Your task to perform on an android device: Go to settings Image 0: 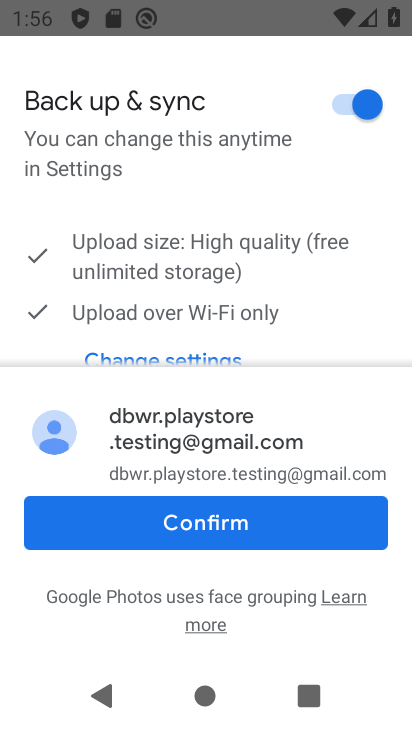
Step 0: press home button
Your task to perform on an android device: Go to settings Image 1: 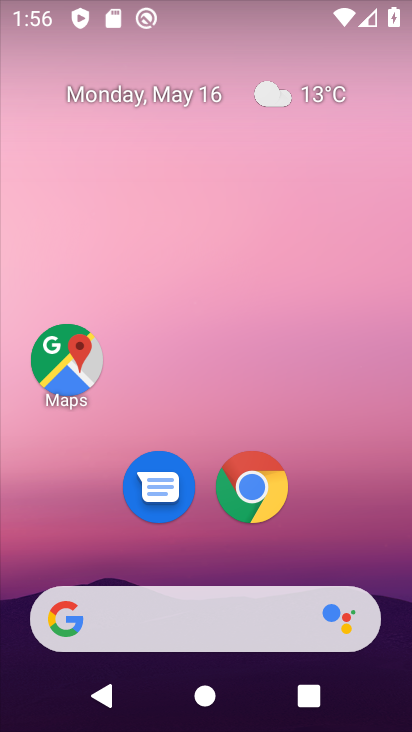
Step 1: drag from (357, 421) to (164, 232)
Your task to perform on an android device: Go to settings Image 2: 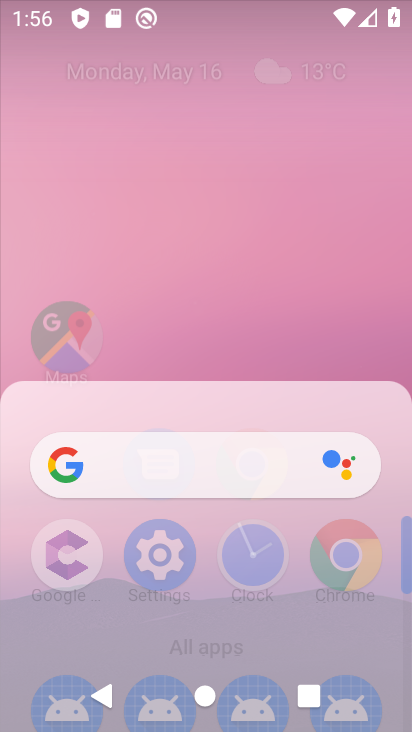
Step 2: drag from (98, 157) to (90, 118)
Your task to perform on an android device: Go to settings Image 3: 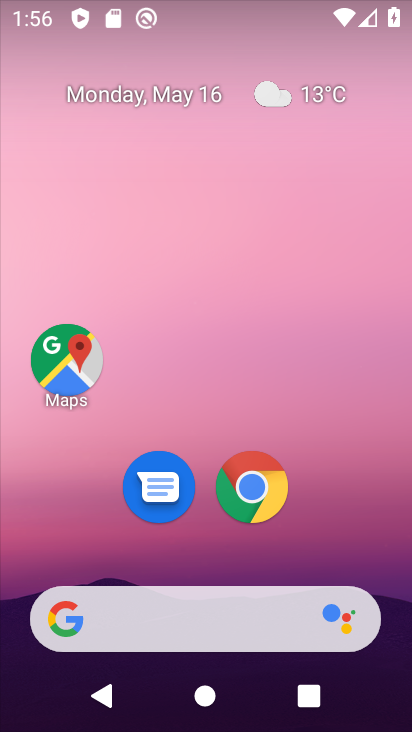
Step 3: drag from (299, 537) to (110, 93)
Your task to perform on an android device: Go to settings Image 4: 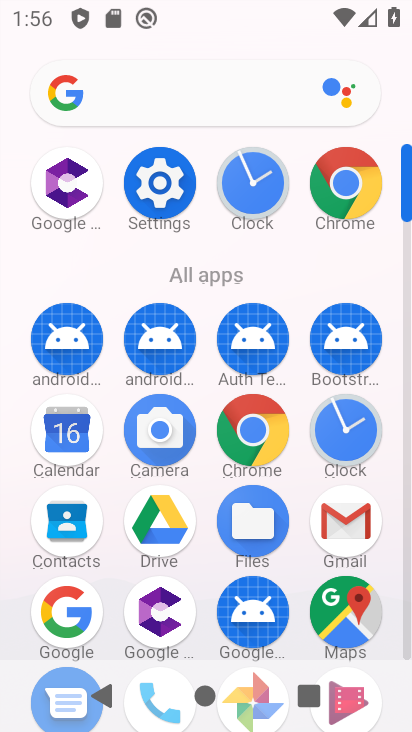
Step 4: click (162, 207)
Your task to perform on an android device: Go to settings Image 5: 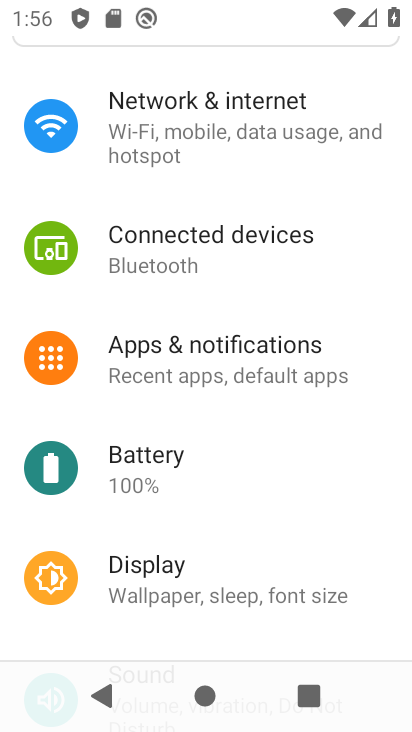
Step 5: task complete